Your task to perform on an android device: see sites visited before in the chrome app Image 0: 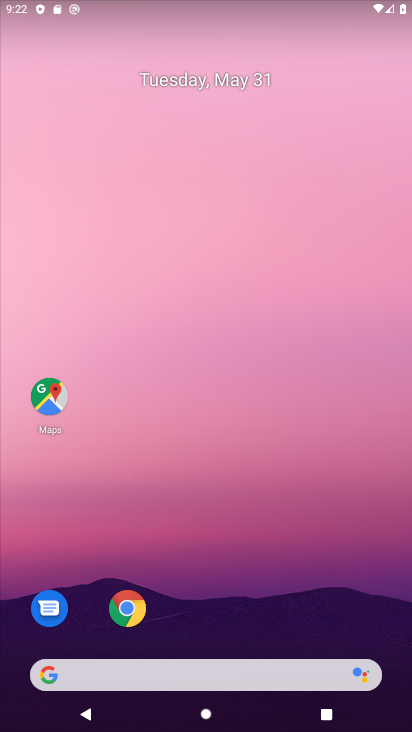
Step 0: click (137, 609)
Your task to perform on an android device: see sites visited before in the chrome app Image 1: 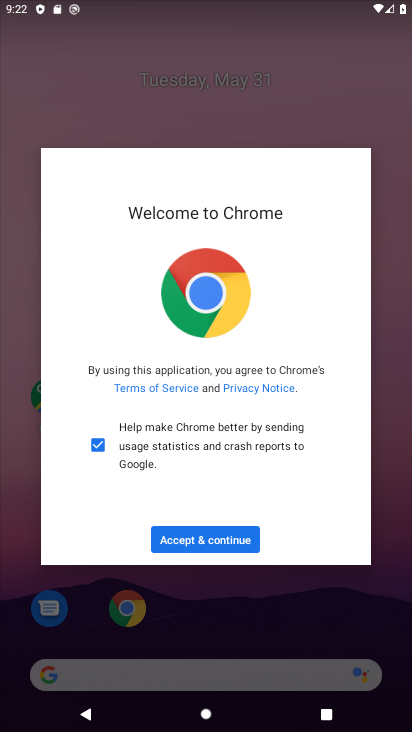
Step 1: click (220, 541)
Your task to perform on an android device: see sites visited before in the chrome app Image 2: 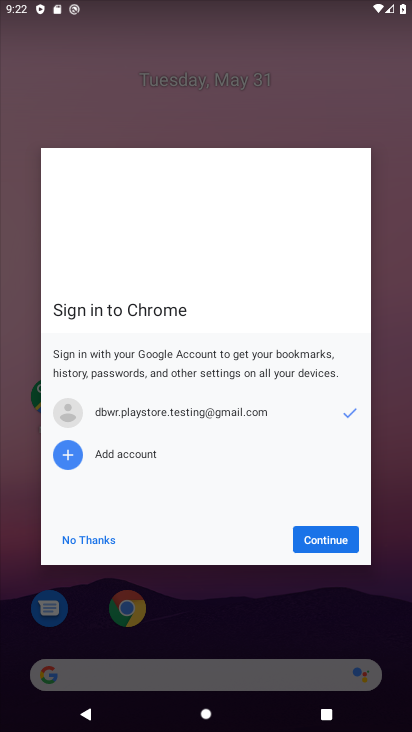
Step 2: click (320, 550)
Your task to perform on an android device: see sites visited before in the chrome app Image 3: 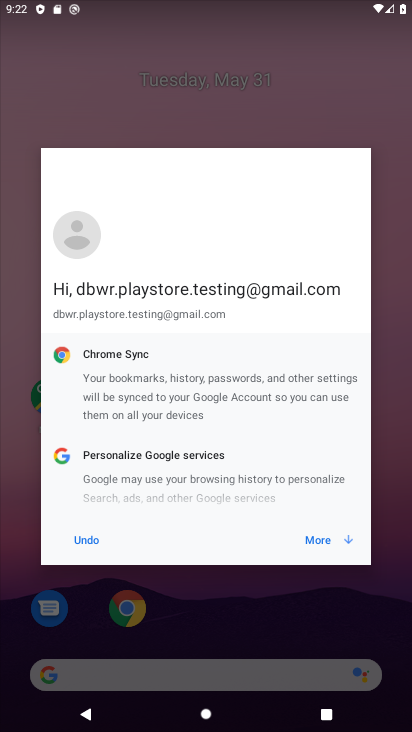
Step 3: click (320, 550)
Your task to perform on an android device: see sites visited before in the chrome app Image 4: 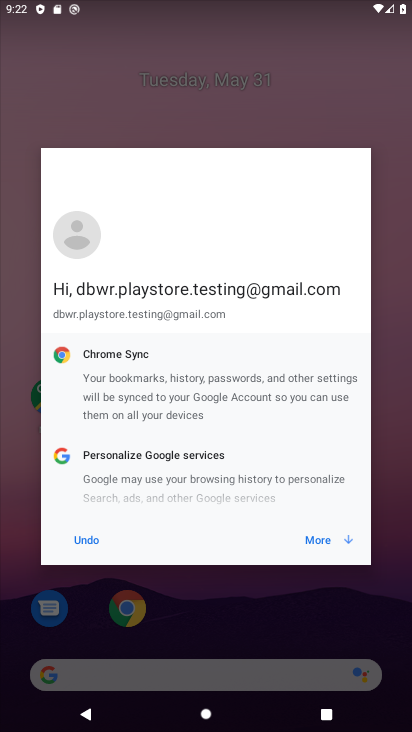
Step 4: click (320, 550)
Your task to perform on an android device: see sites visited before in the chrome app Image 5: 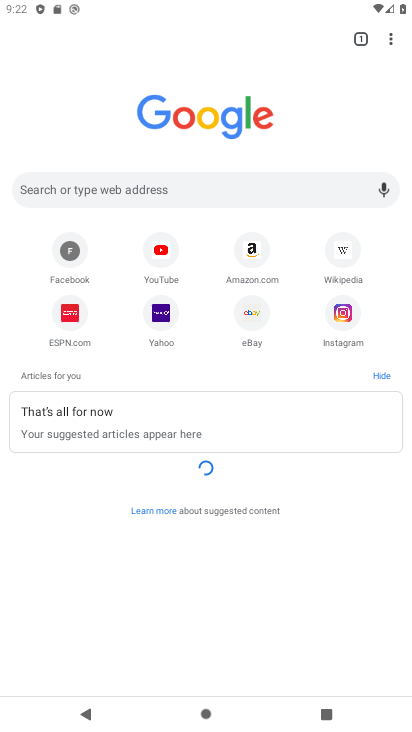
Step 5: click (395, 46)
Your task to perform on an android device: see sites visited before in the chrome app Image 6: 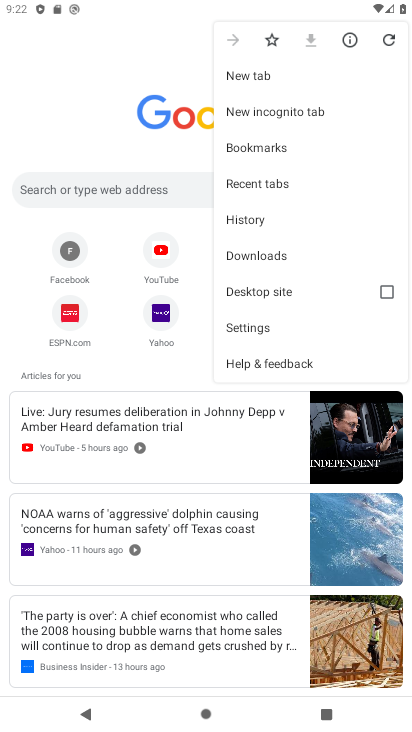
Step 6: click (254, 170)
Your task to perform on an android device: see sites visited before in the chrome app Image 7: 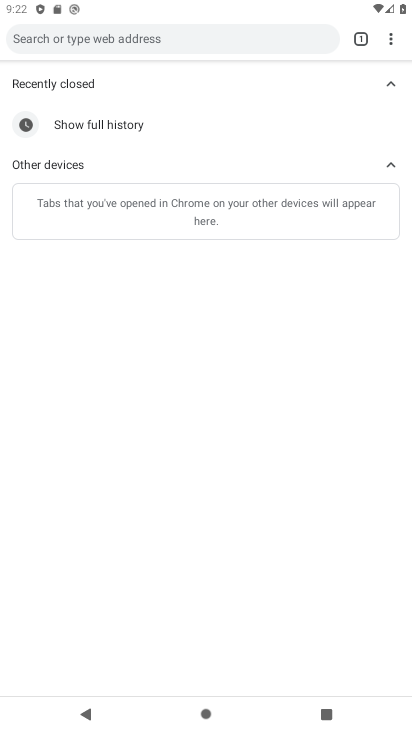
Step 7: task complete